Your task to perform on an android device: Open Chrome and go to the settings page Image 0: 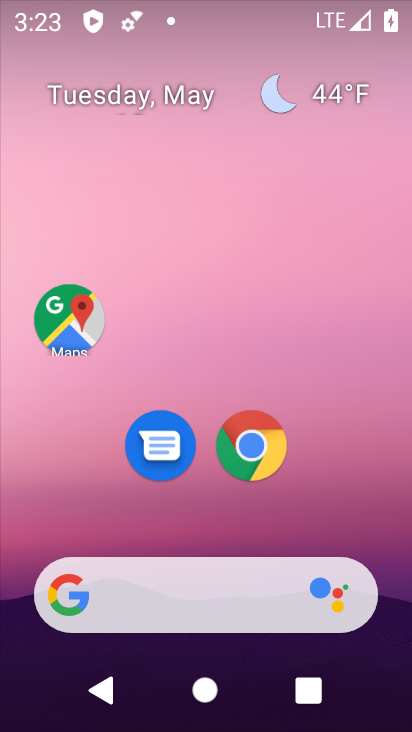
Step 0: drag from (218, 537) to (315, 9)
Your task to perform on an android device: Open Chrome and go to the settings page Image 1: 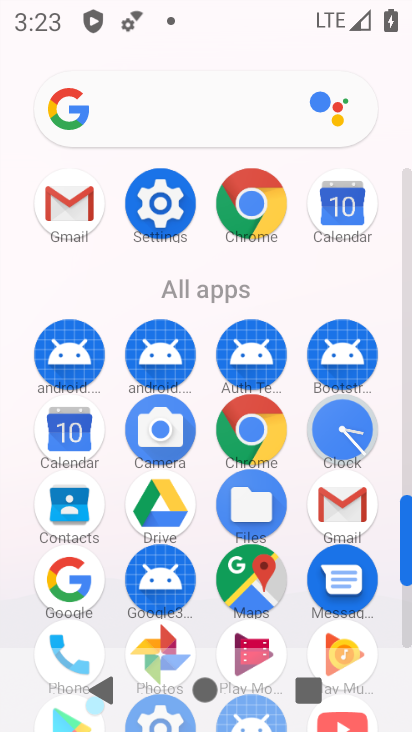
Step 1: click (246, 198)
Your task to perform on an android device: Open Chrome and go to the settings page Image 2: 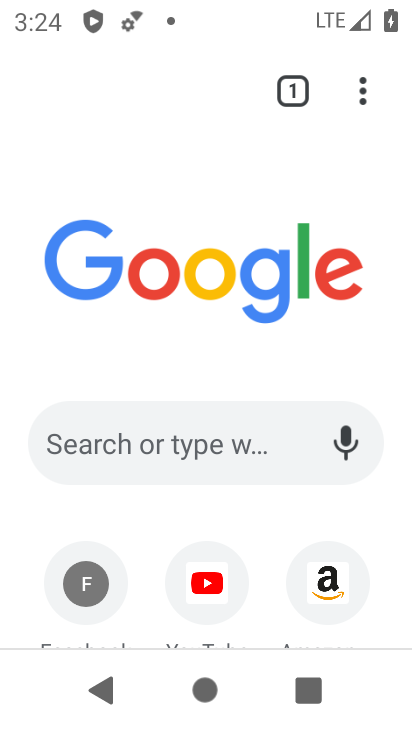
Step 2: task complete